Your task to perform on an android device: delete the emails in spam in the gmail app Image 0: 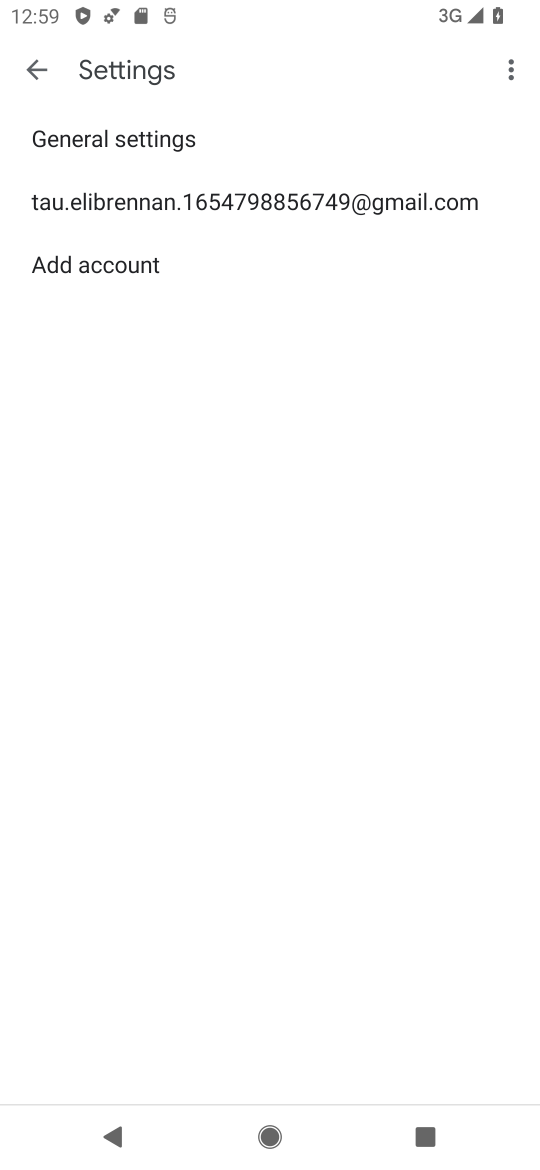
Step 0: press home button
Your task to perform on an android device: delete the emails in spam in the gmail app Image 1: 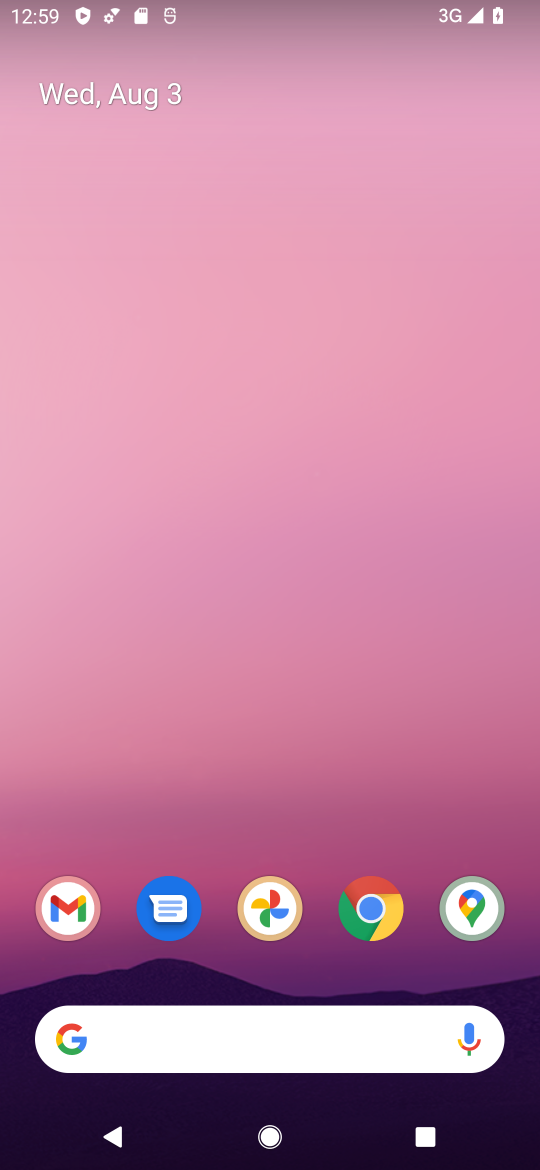
Step 1: click (63, 911)
Your task to perform on an android device: delete the emails in spam in the gmail app Image 2: 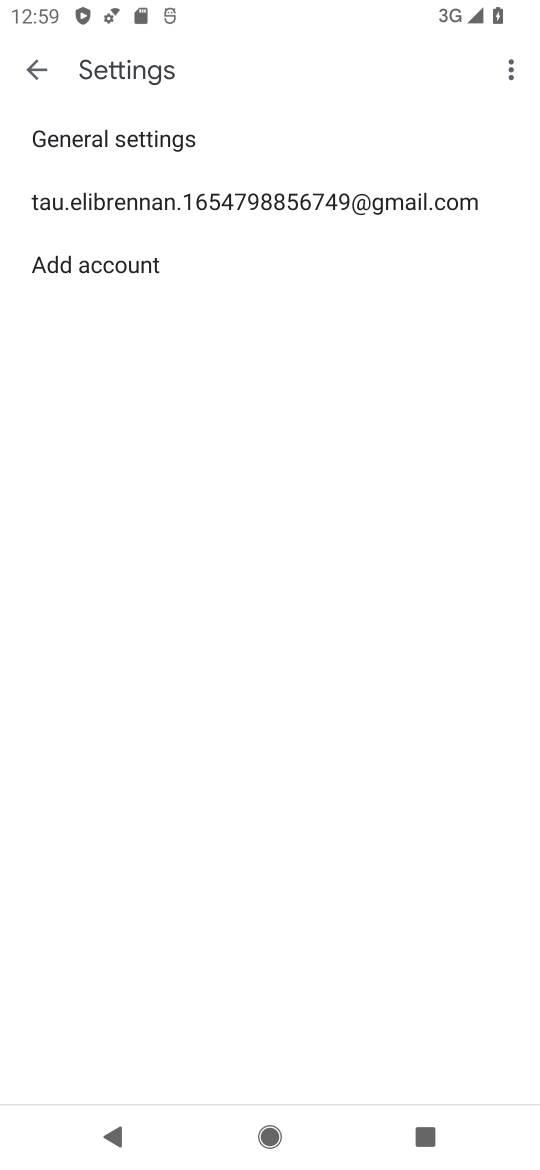
Step 2: click (24, 76)
Your task to perform on an android device: delete the emails in spam in the gmail app Image 3: 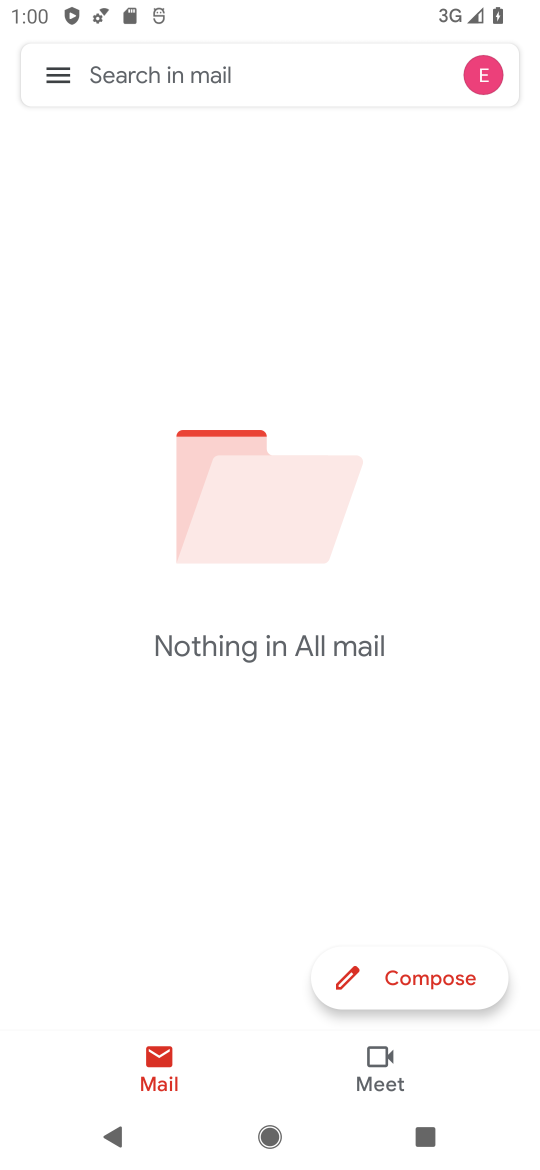
Step 3: click (58, 76)
Your task to perform on an android device: delete the emails in spam in the gmail app Image 4: 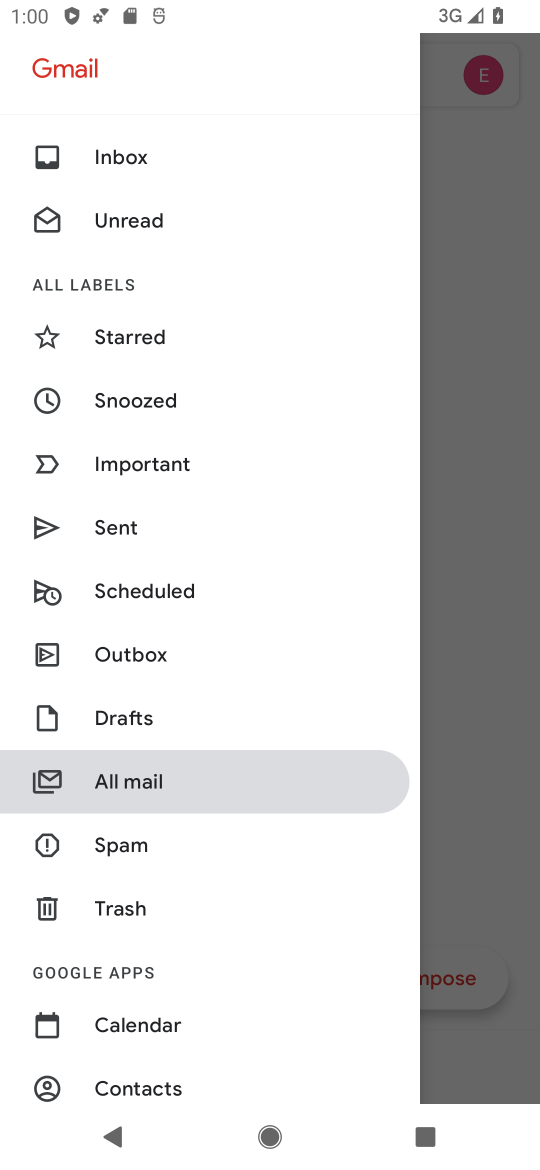
Step 4: click (120, 839)
Your task to perform on an android device: delete the emails in spam in the gmail app Image 5: 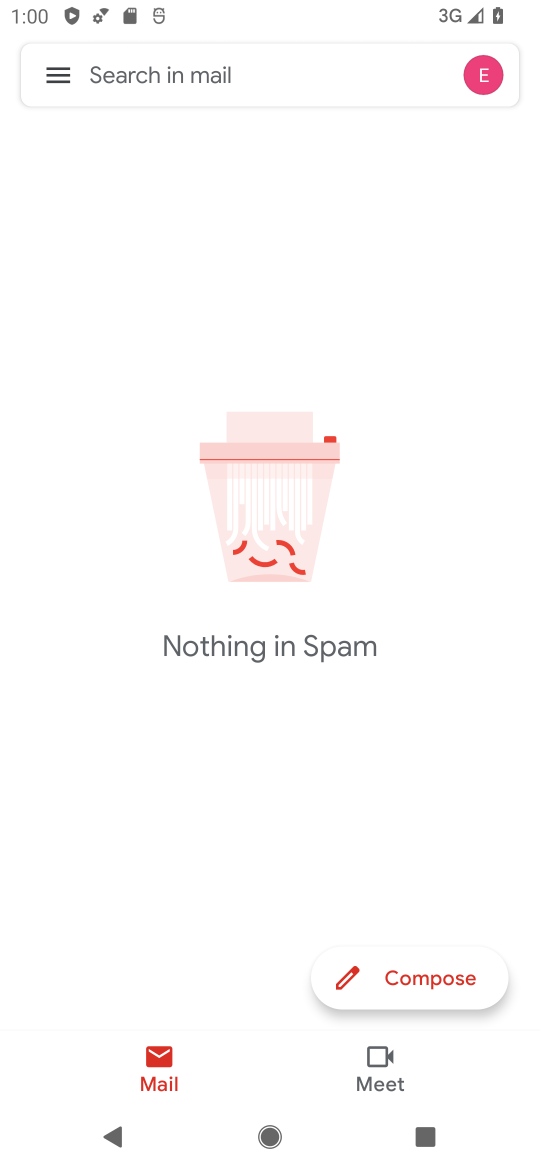
Step 5: task complete